Your task to perform on an android device: open chrome privacy settings Image 0: 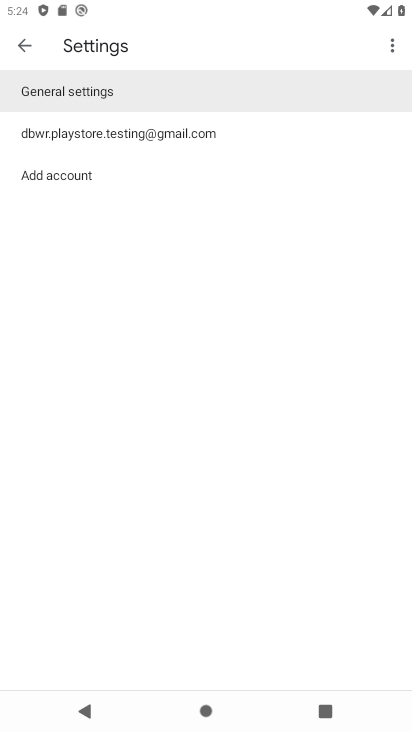
Step 0: press home button
Your task to perform on an android device: open chrome privacy settings Image 1: 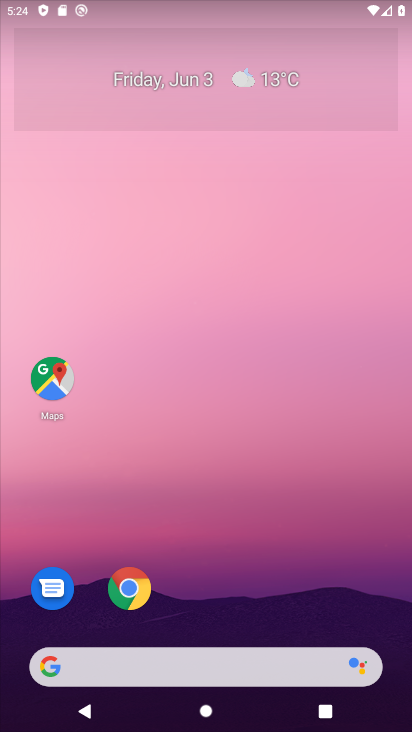
Step 1: drag from (75, 453) to (245, 148)
Your task to perform on an android device: open chrome privacy settings Image 2: 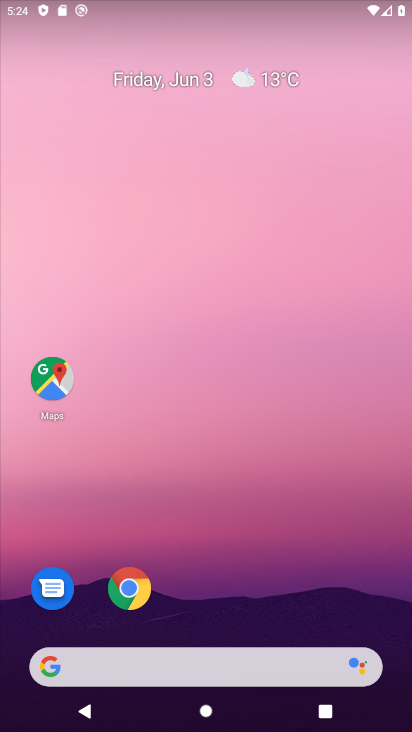
Step 2: drag from (87, 502) to (281, 202)
Your task to perform on an android device: open chrome privacy settings Image 3: 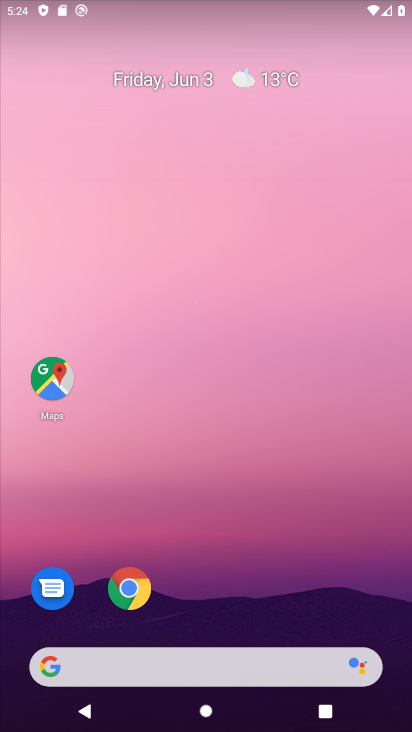
Step 3: drag from (69, 584) to (346, 141)
Your task to perform on an android device: open chrome privacy settings Image 4: 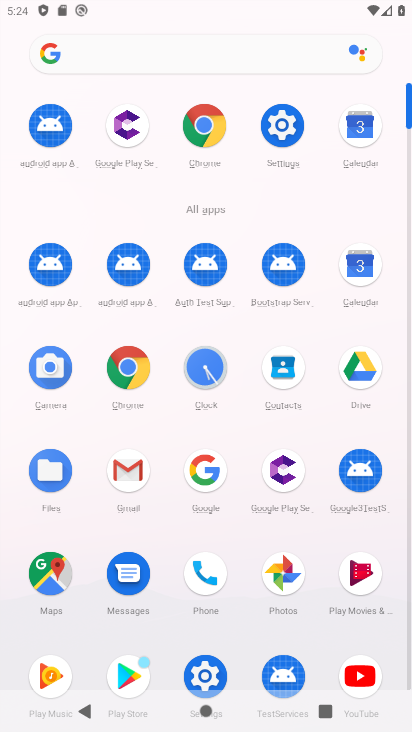
Step 4: click (286, 121)
Your task to perform on an android device: open chrome privacy settings Image 5: 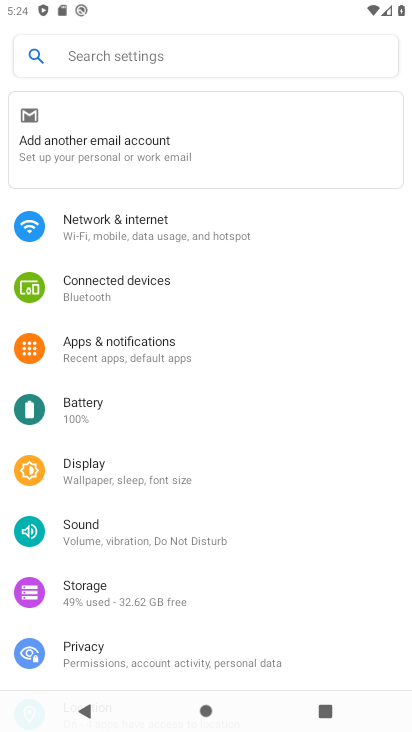
Step 5: click (131, 657)
Your task to perform on an android device: open chrome privacy settings Image 6: 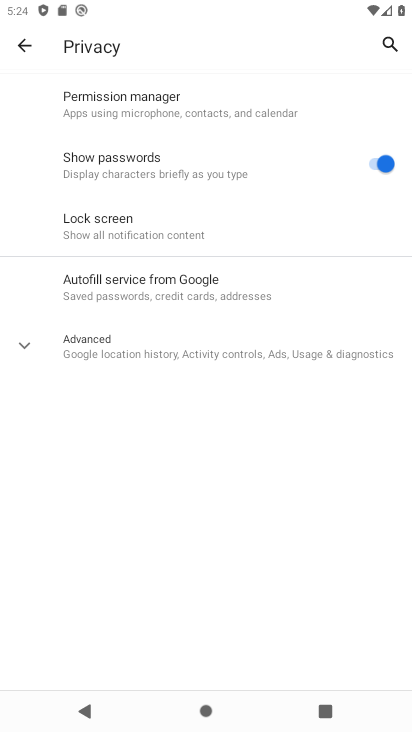
Step 6: task complete